Your task to perform on an android device: Search for pizza restaurants on Maps Image 0: 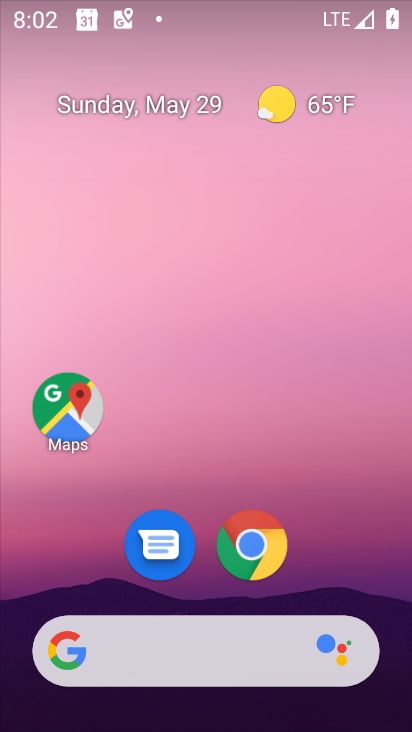
Step 0: click (69, 404)
Your task to perform on an android device: Search for pizza restaurants on Maps Image 1: 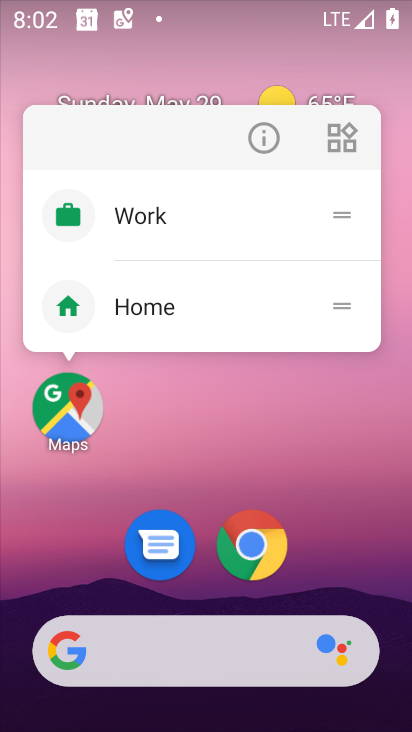
Step 1: click (255, 148)
Your task to perform on an android device: Search for pizza restaurants on Maps Image 2: 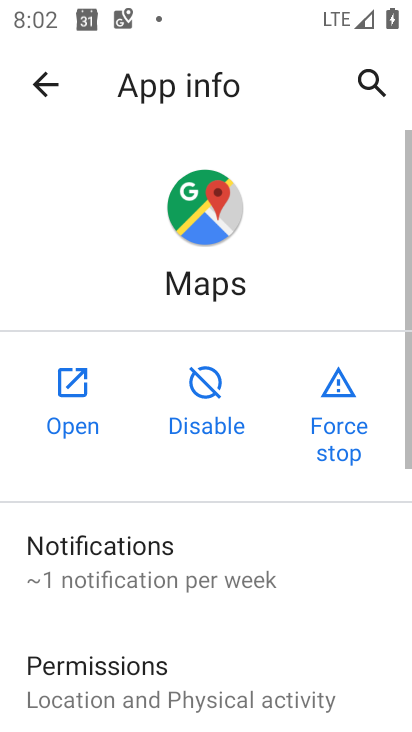
Step 2: click (90, 411)
Your task to perform on an android device: Search for pizza restaurants on Maps Image 3: 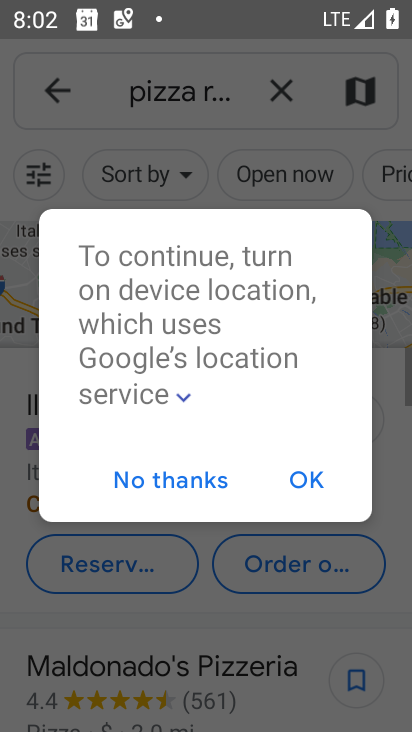
Step 3: click (282, 82)
Your task to perform on an android device: Search for pizza restaurants on Maps Image 4: 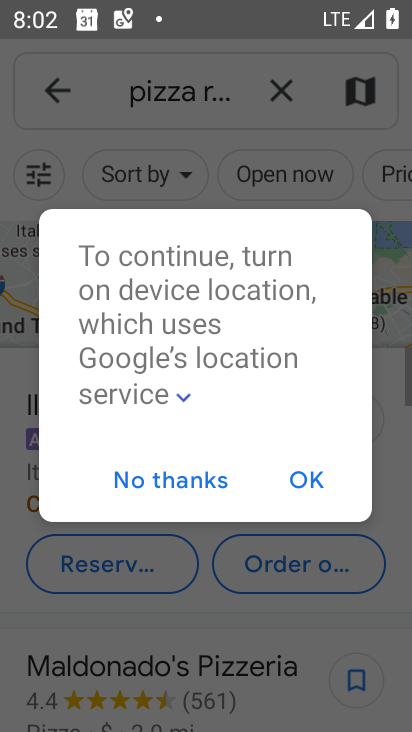
Step 4: click (292, 482)
Your task to perform on an android device: Search for pizza restaurants on Maps Image 5: 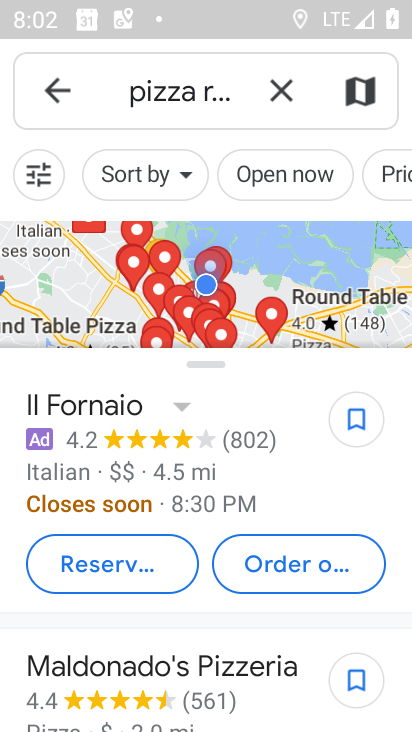
Step 5: task complete